Your task to perform on an android device: set the stopwatch Image 0: 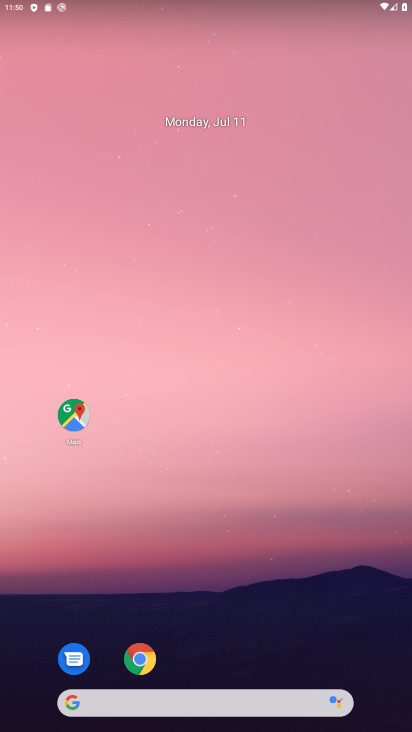
Step 0: drag from (224, 647) to (362, 90)
Your task to perform on an android device: set the stopwatch Image 1: 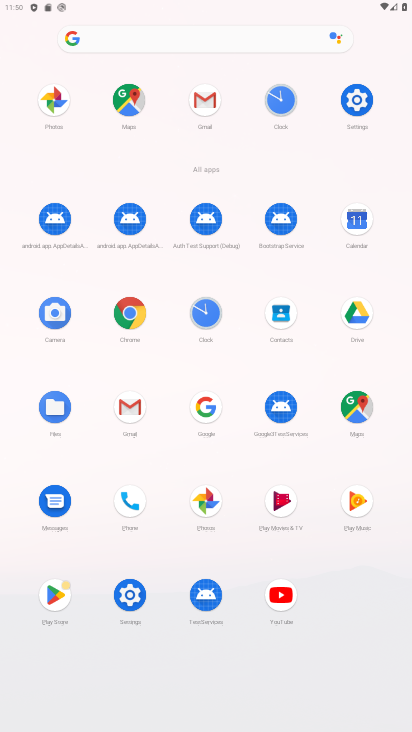
Step 1: click (213, 323)
Your task to perform on an android device: set the stopwatch Image 2: 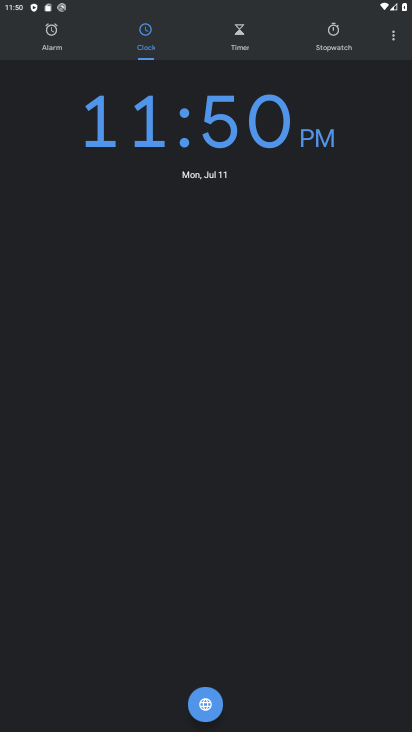
Step 2: click (330, 51)
Your task to perform on an android device: set the stopwatch Image 3: 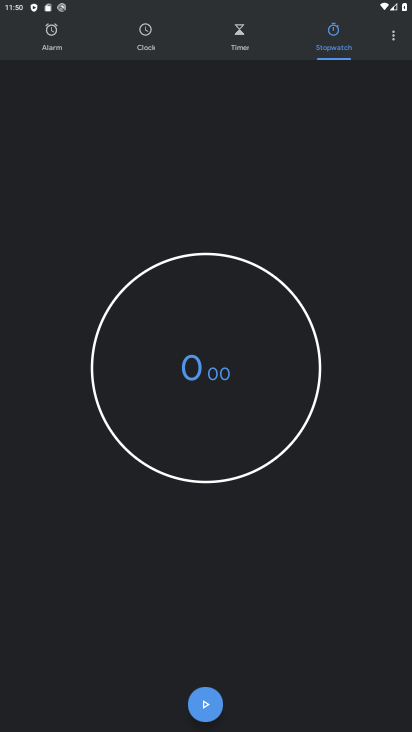
Step 3: click (210, 709)
Your task to perform on an android device: set the stopwatch Image 4: 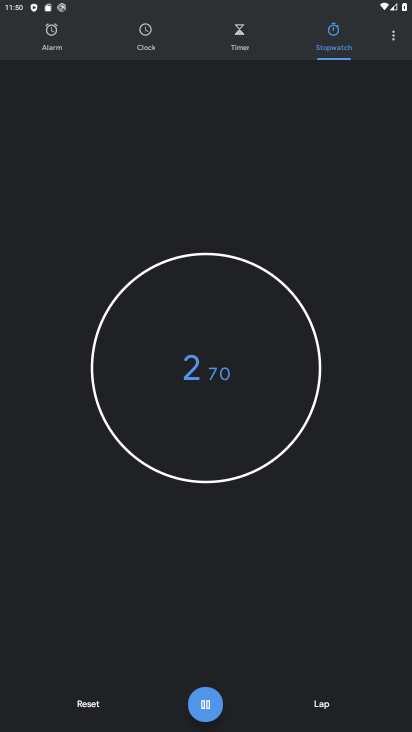
Step 4: task complete